Your task to perform on an android device: empty trash in google photos Image 0: 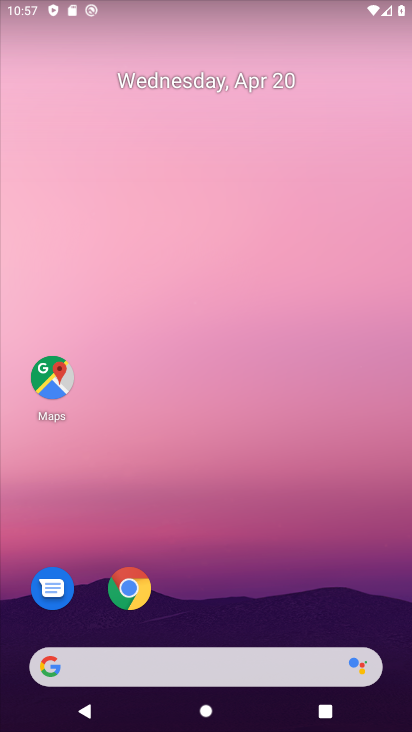
Step 0: drag from (199, 638) to (311, 13)
Your task to perform on an android device: empty trash in google photos Image 1: 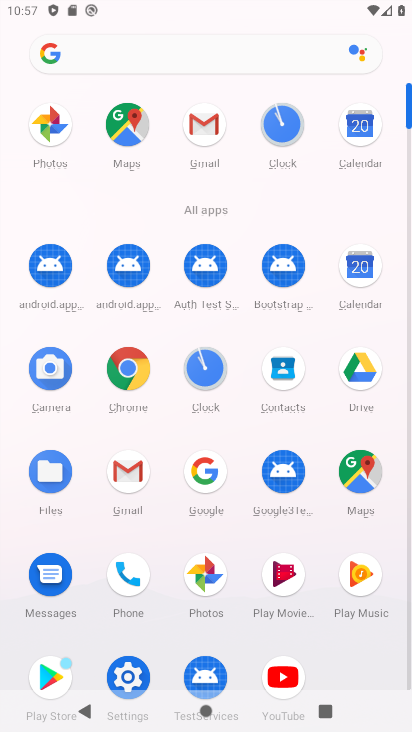
Step 1: click (205, 574)
Your task to perform on an android device: empty trash in google photos Image 2: 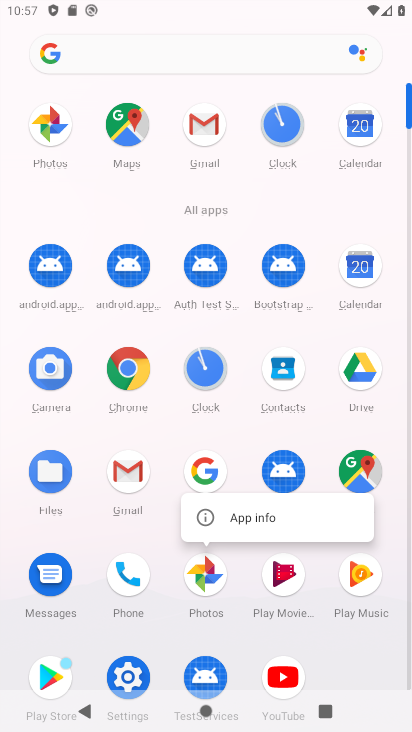
Step 2: click (200, 585)
Your task to perform on an android device: empty trash in google photos Image 3: 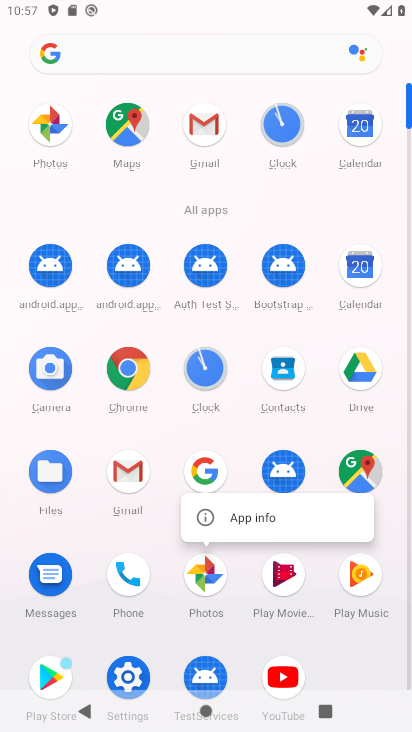
Step 3: click (213, 584)
Your task to perform on an android device: empty trash in google photos Image 4: 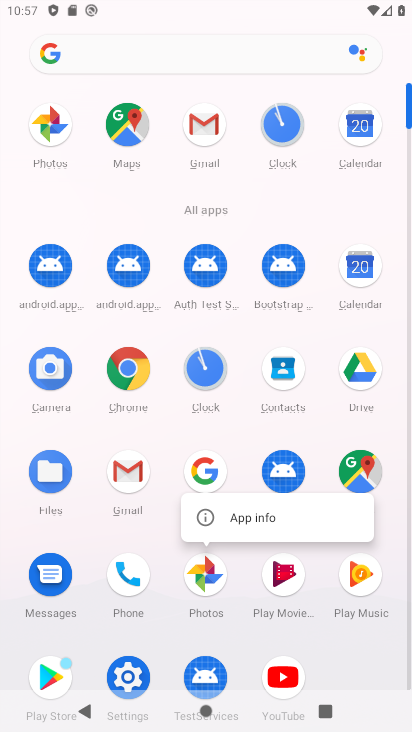
Step 4: click (211, 585)
Your task to perform on an android device: empty trash in google photos Image 5: 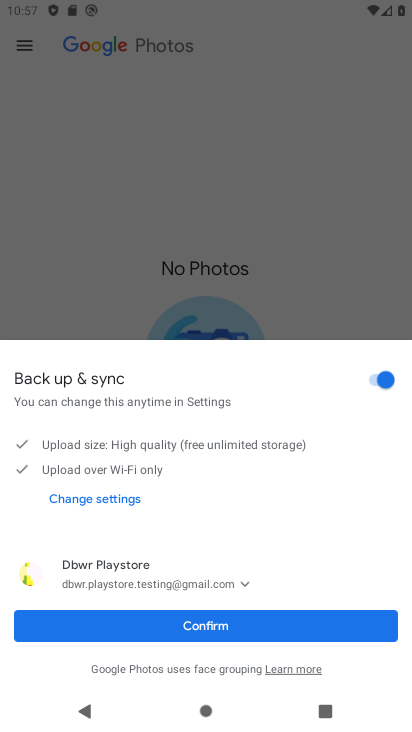
Step 5: click (230, 629)
Your task to perform on an android device: empty trash in google photos Image 6: 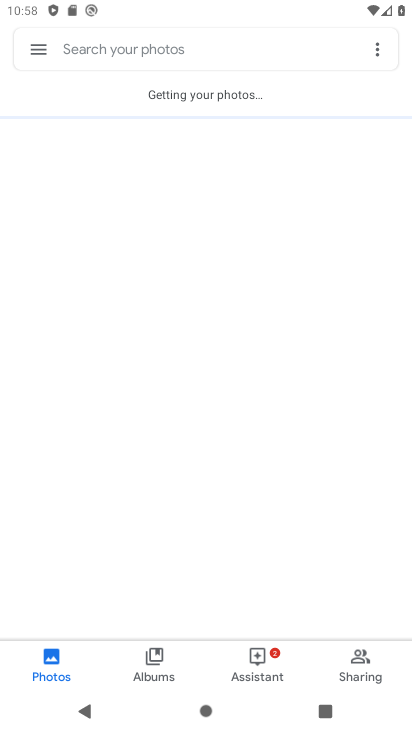
Step 6: click (47, 53)
Your task to perform on an android device: empty trash in google photos Image 7: 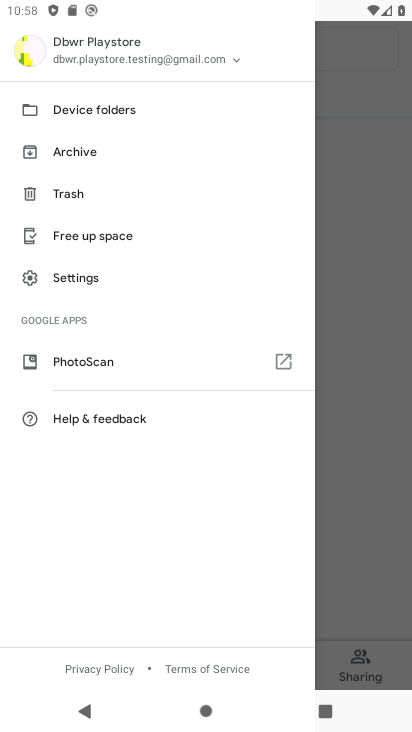
Step 7: click (101, 197)
Your task to perform on an android device: empty trash in google photos Image 8: 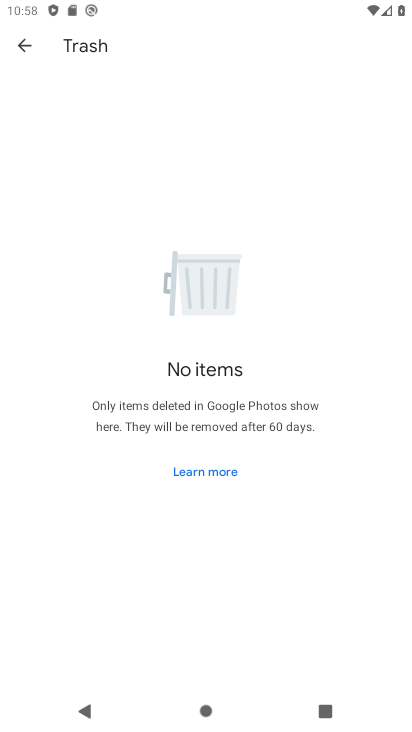
Step 8: task complete